Your task to perform on an android device: Show me popular games on the Play Store Image 0: 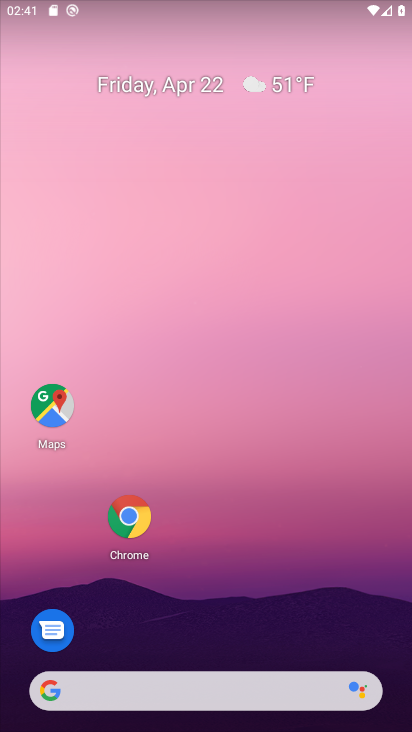
Step 0: drag from (356, 642) to (341, 257)
Your task to perform on an android device: Show me popular games on the Play Store Image 1: 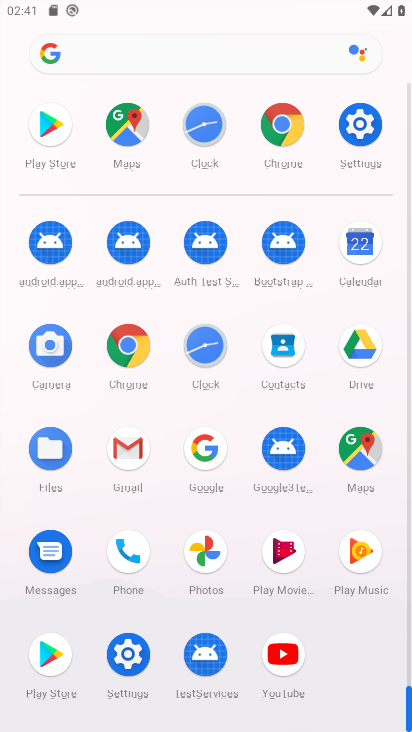
Step 1: click (45, 651)
Your task to perform on an android device: Show me popular games on the Play Store Image 2: 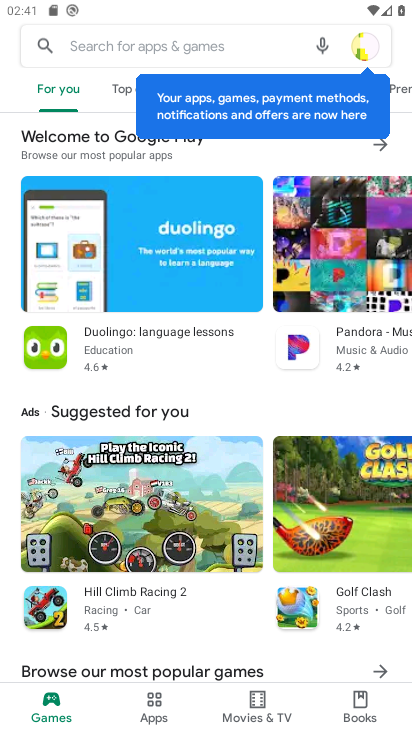
Step 2: task complete